Your task to perform on an android device: Open calendar and show me the first week of next month Image 0: 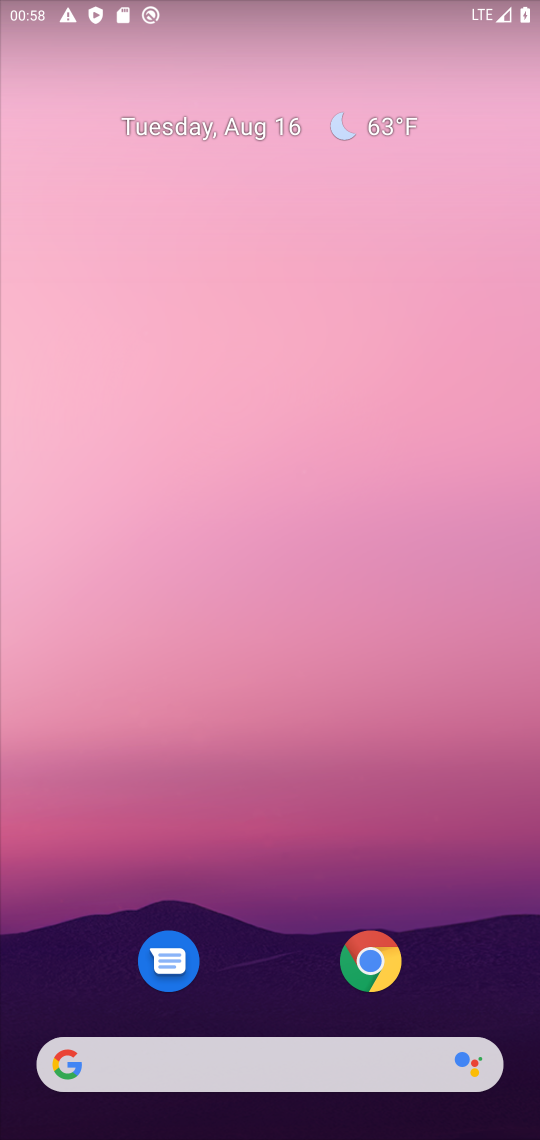
Step 0: drag from (280, 974) to (274, 135)
Your task to perform on an android device: Open calendar and show me the first week of next month Image 1: 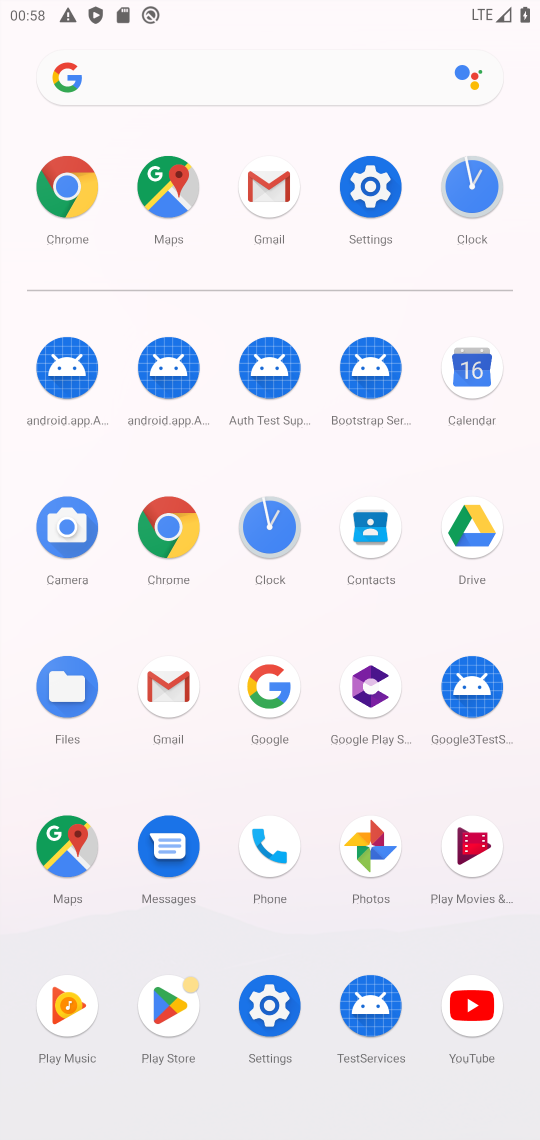
Step 1: click (458, 389)
Your task to perform on an android device: Open calendar and show me the first week of next month Image 2: 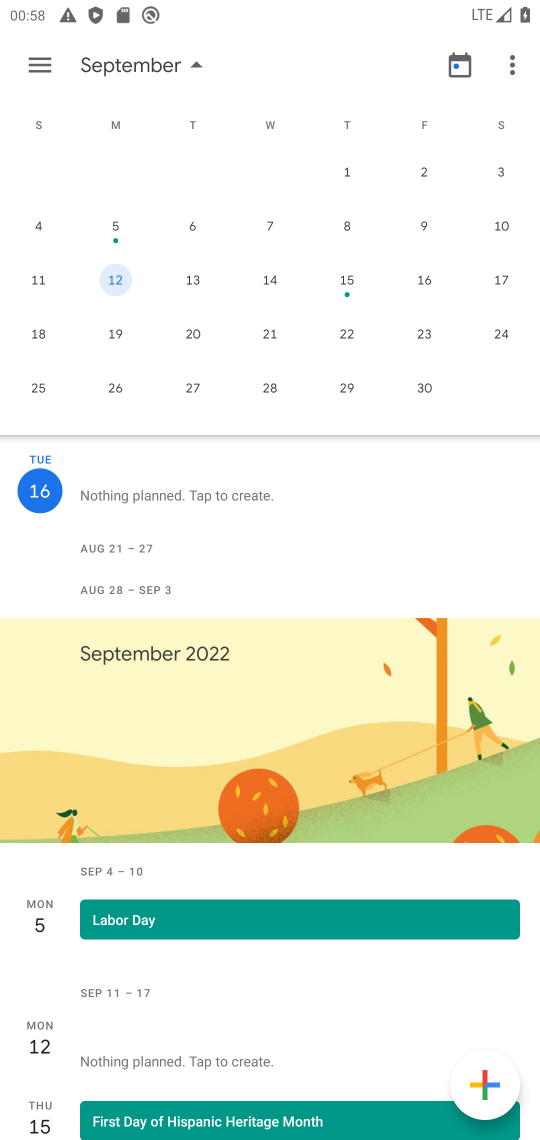
Step 2: drag from (83, 267) to (467, 217)
Your task to perform on an android device: Open calendar and show me the first week of next month Image 3: 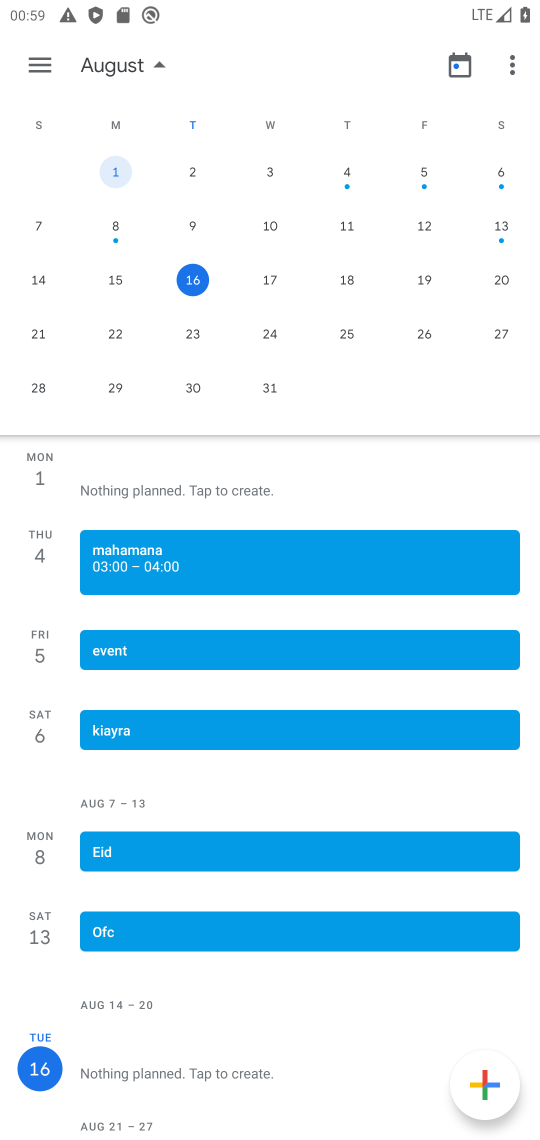
Step 3: drag from (422, 213) to (40, 298)
Your task to perform on an android device: Open calendar and show me the first week of next month Image 4: 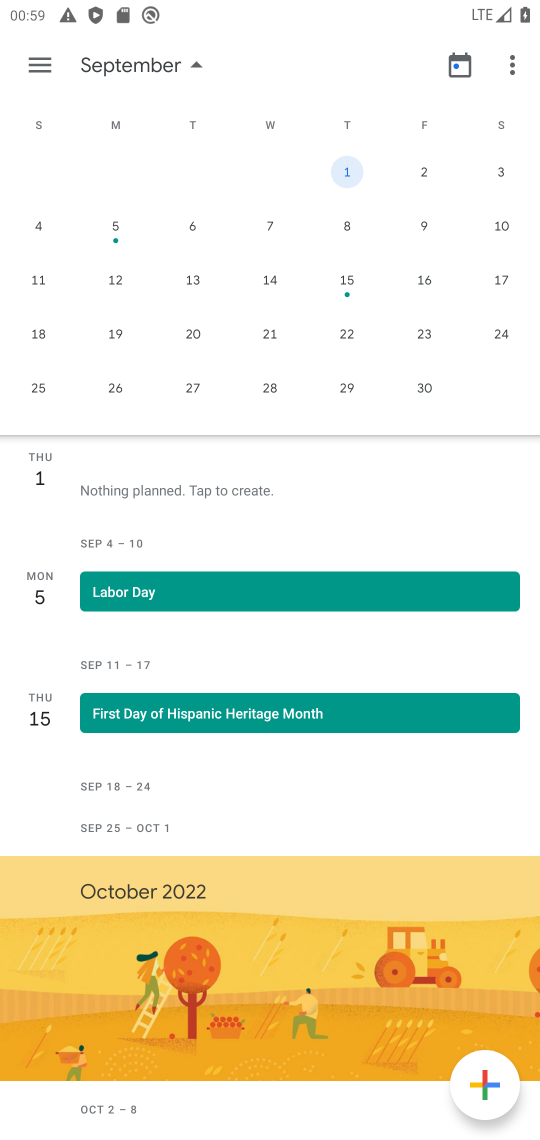
Step 4: click (332, 174)
Your task to perform on an android device: Open calendar and show me the first week of next month Image 5: 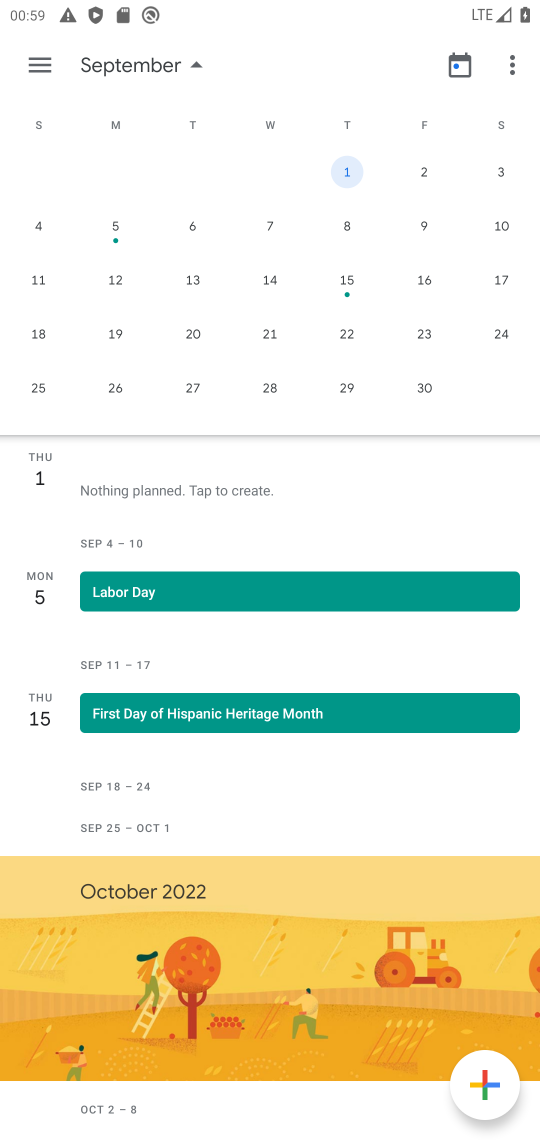
Step 5: task complete